Your task to perform on an android device: stop showing notifications on the lock screen Image 0: 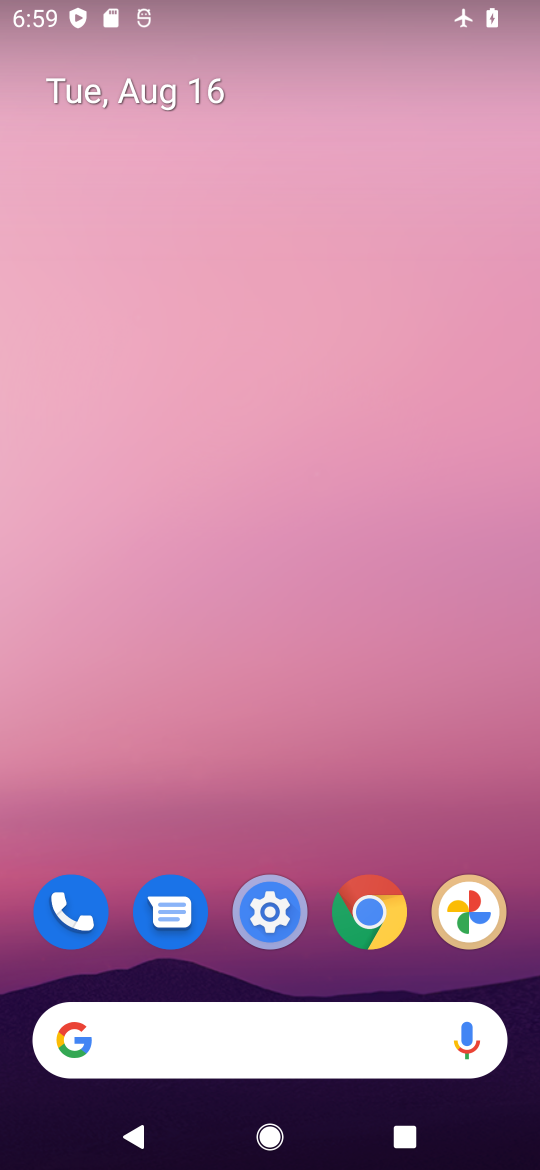
Step 0: click (270, 913)
Your task to perform on an android device: stop showing notifications on the lock screen Image 1: 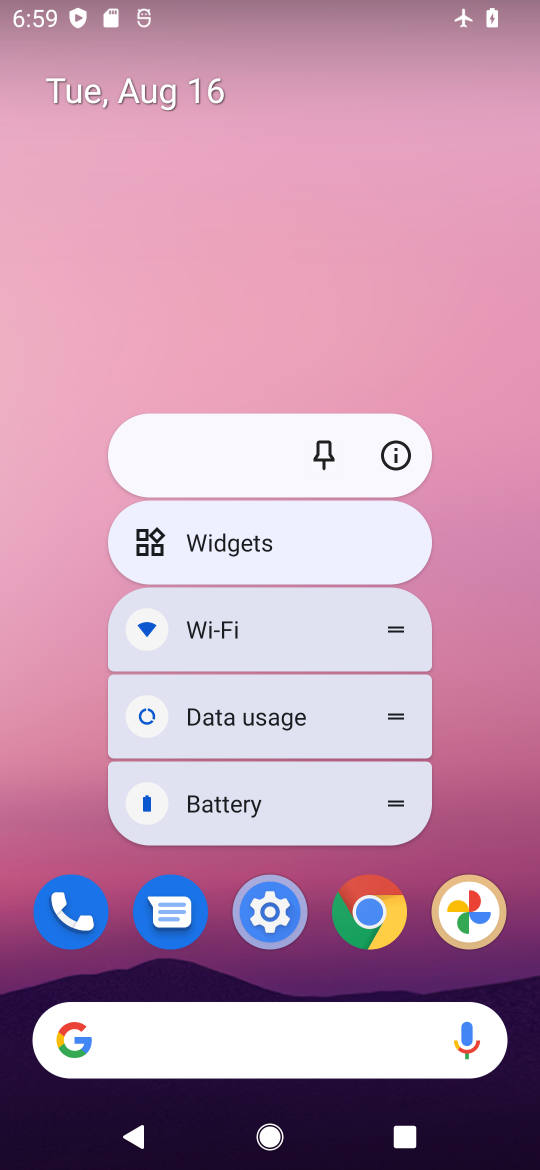
Step 1: click (269, 914)
Your task to perform on an android device: stop showing notifications on the lock screen Image 2: 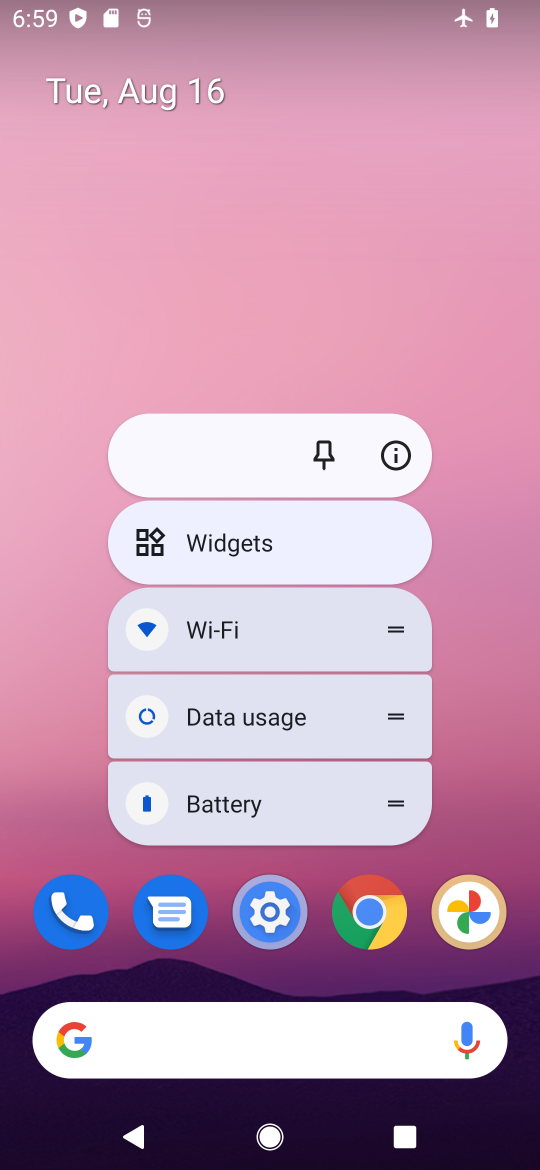
Step 2: click (269, 914)
Your task to perform on an android device: stop showing notifications on the lock screen Image 3: 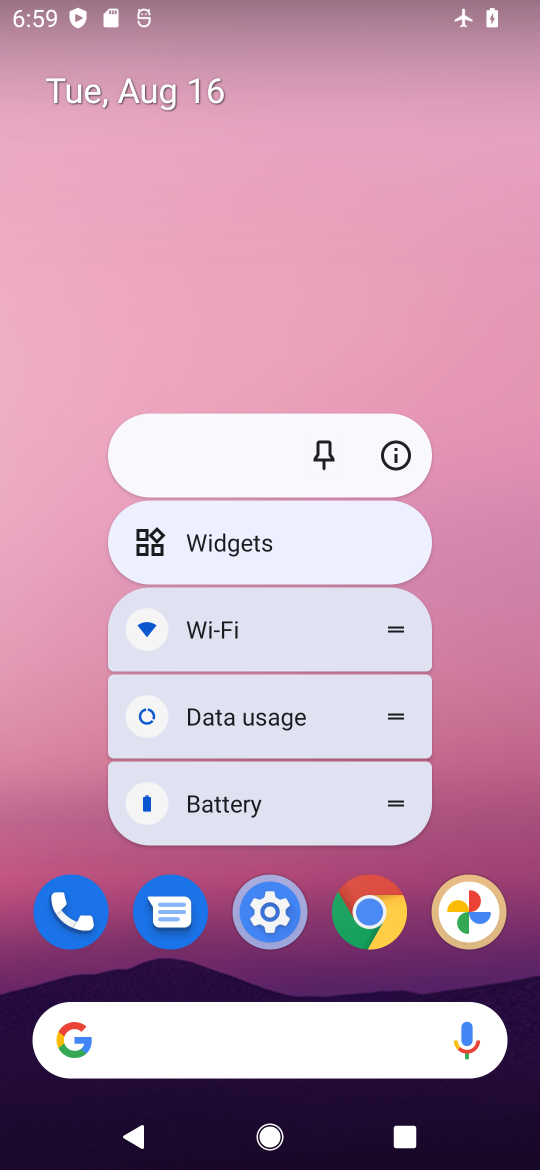
Step 3: click (271, 914)
Your task to perform on an android device: stop showing notifications on the lock screen Image 4: 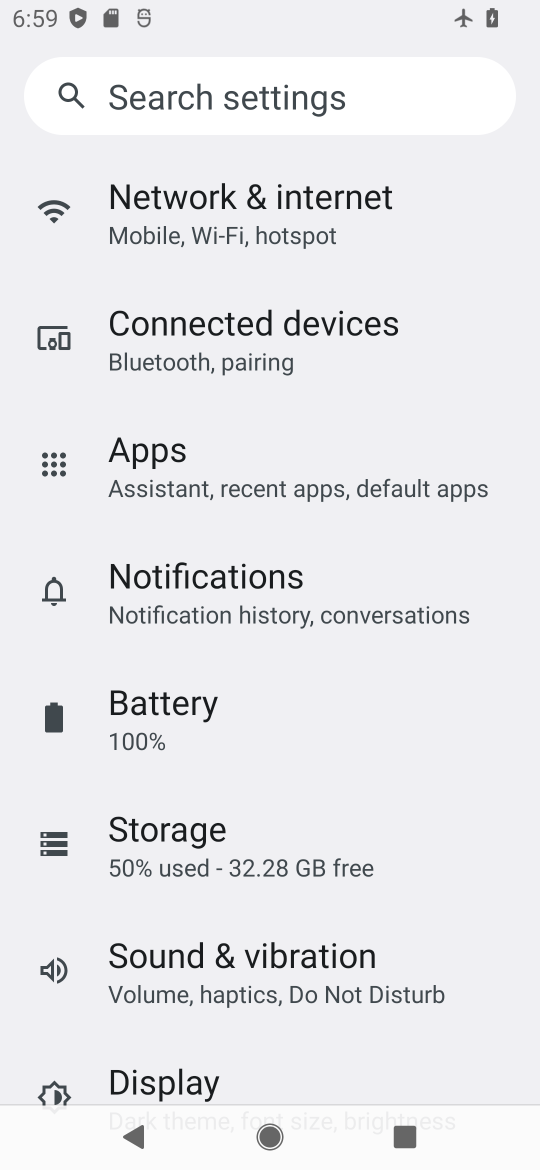
Step 4: click (236, 612)
Your task to perform on an android device: stop showing notifications on the lock screen Image 5: 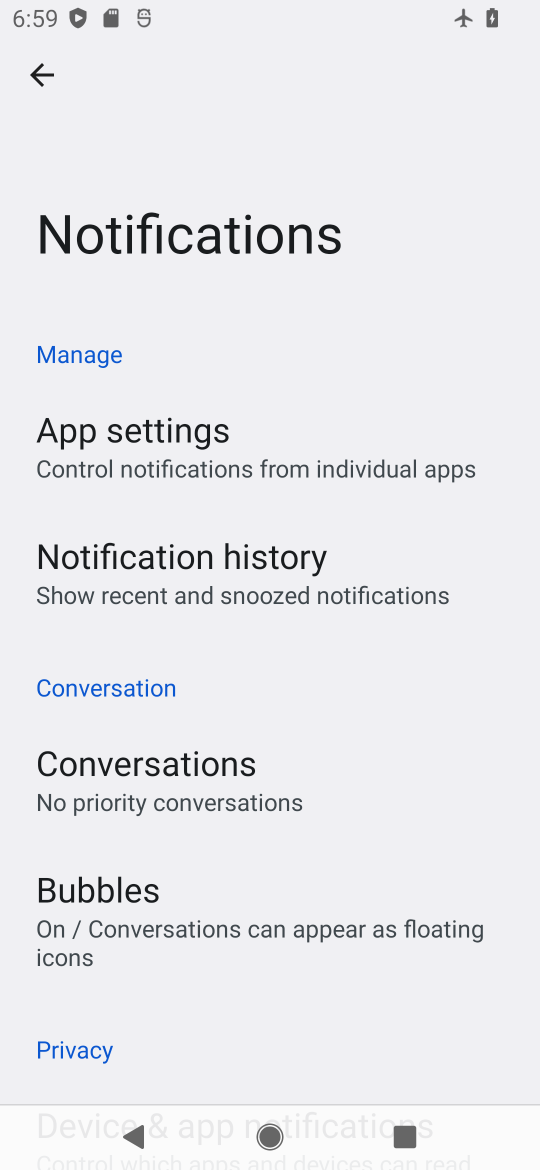
Step 5: drag from (262, 802) to (268, 542)
Your task to perform on an android device: stop showing notifications on the lock screen Image 6: 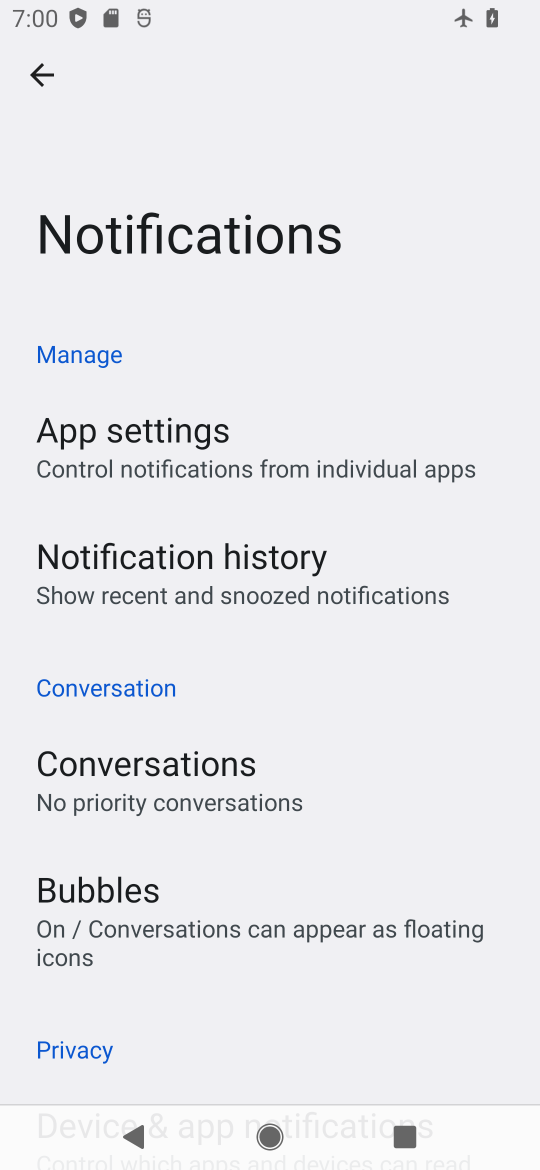
Step 6: drag from (326, 993) to (296, 421)
Your task to perform on an android device: stop showing notifications on the lock screen Image 7: 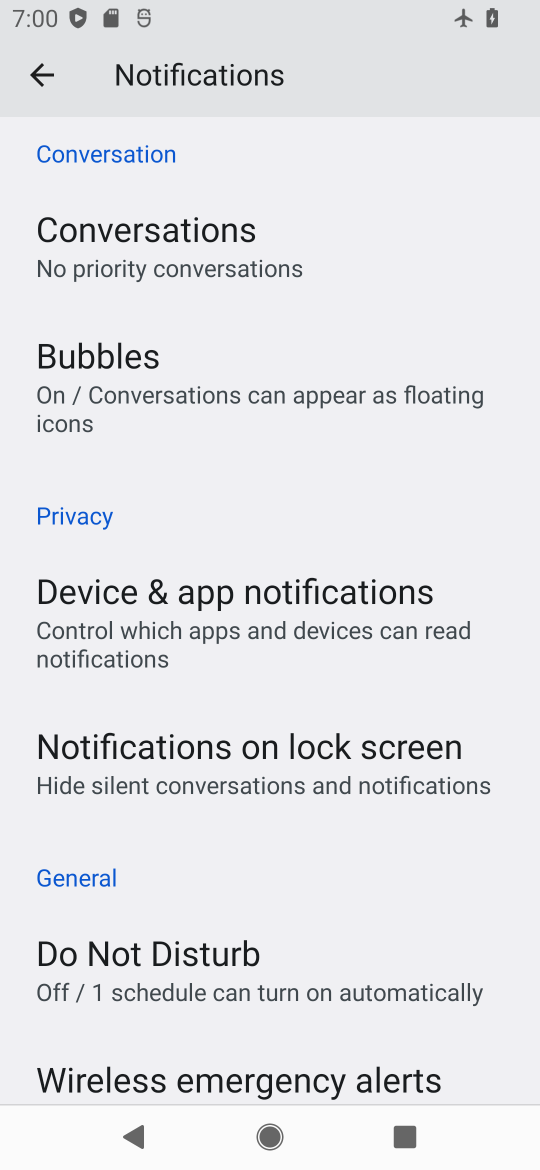
Step 7: drag from (336, 885) to (325, 328)
Your task to perform on an android device: stop showing notifications on the lock screen Image 8: 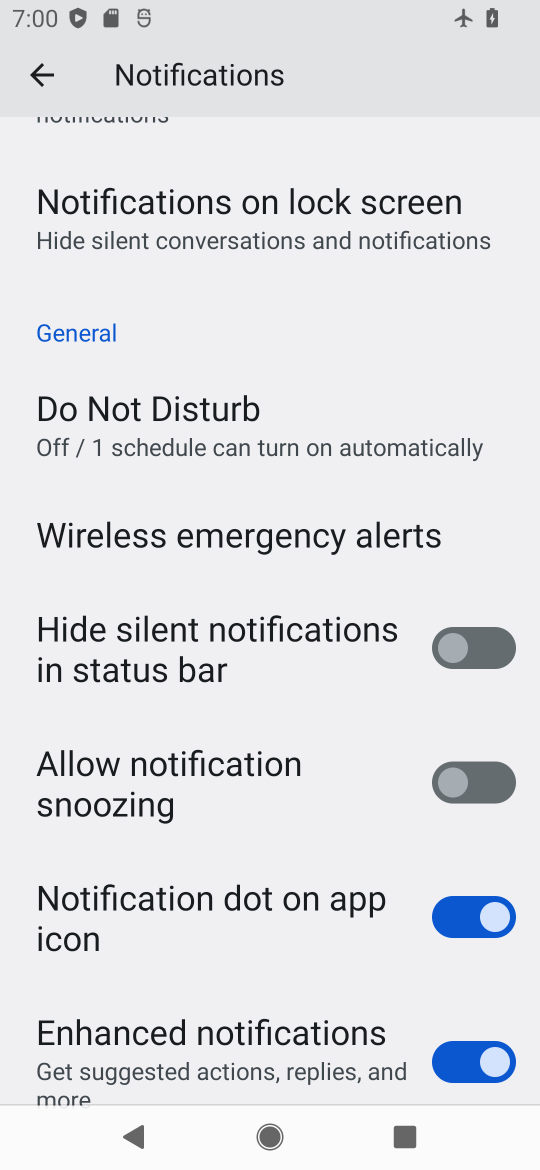
Step 8: drag from (332, 681) to (334, 929)
Your task to perform on an android device: stop showing notifications on the lock screen Image 9: 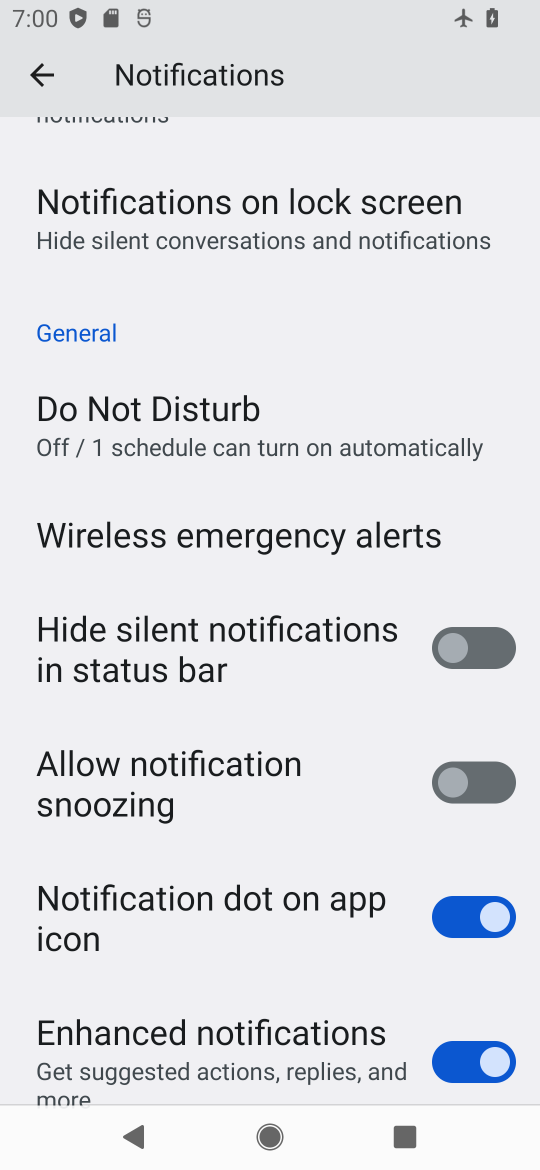
Step 9: click (196, 214)
Your task to perform on an android device: stop showing notifications on the lock screen Image 10: 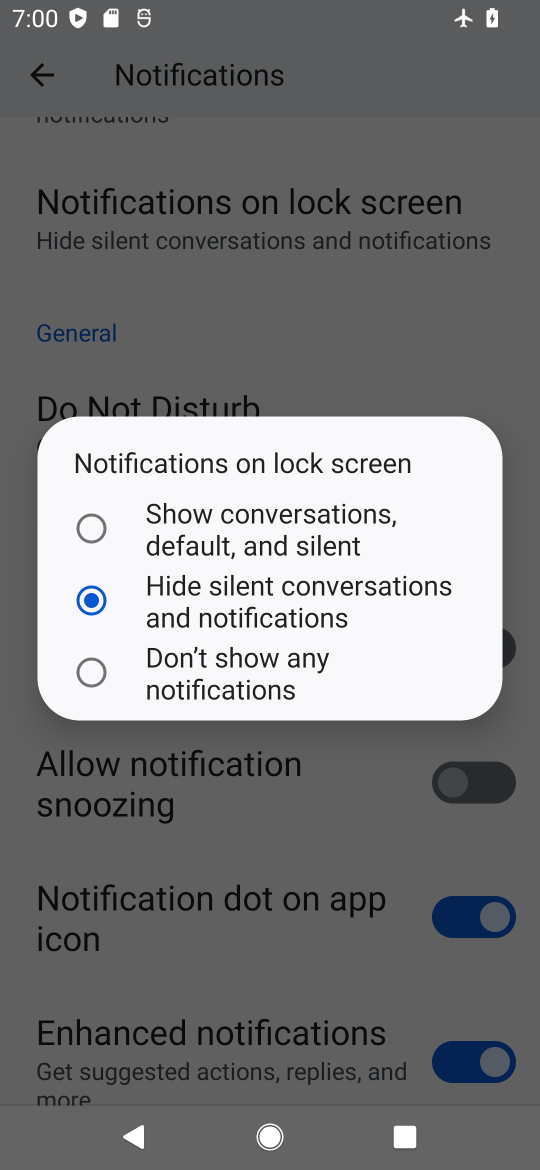
Step 10: click (93, 681)
Your task to perform on an android device: stop showing notifications on the lock screen Image 11: 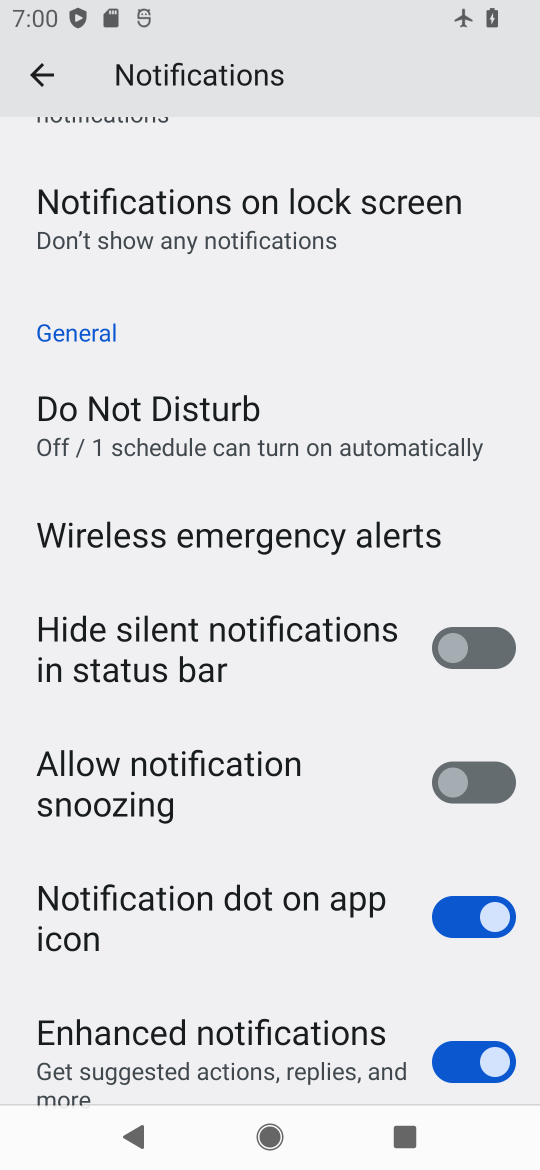
Step 11: task complete